Your task to perform on an android device: delete location history Image 0: 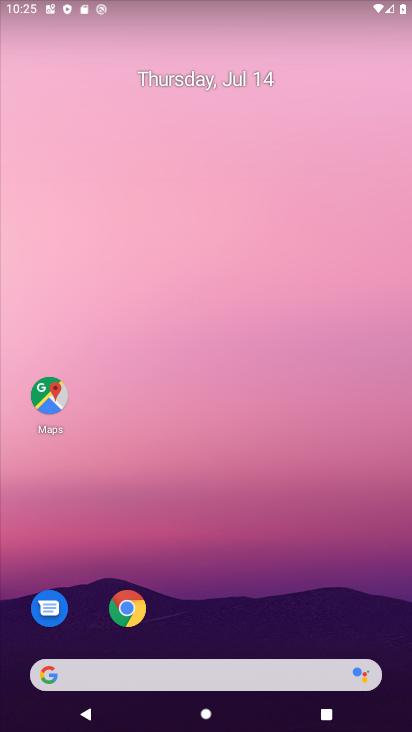
Step 0: drag from (242, 661) to (227, 174)
Your task to perform on an android device: delete location history Image 1: 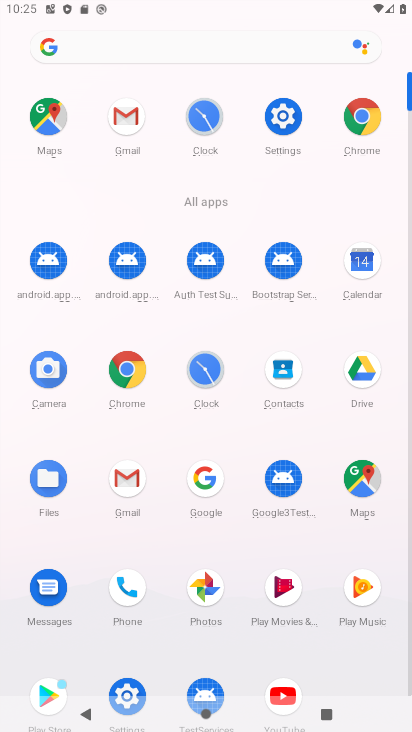
Step 1: click (357, 478)
Your task to perform on an android device: delete location history Image 2: 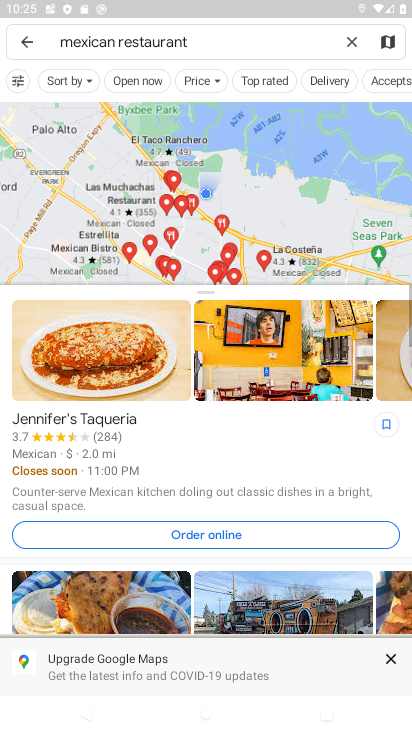
Step 2: click (25, 36)
Your task to perform on an android device: delete location history Image 3: 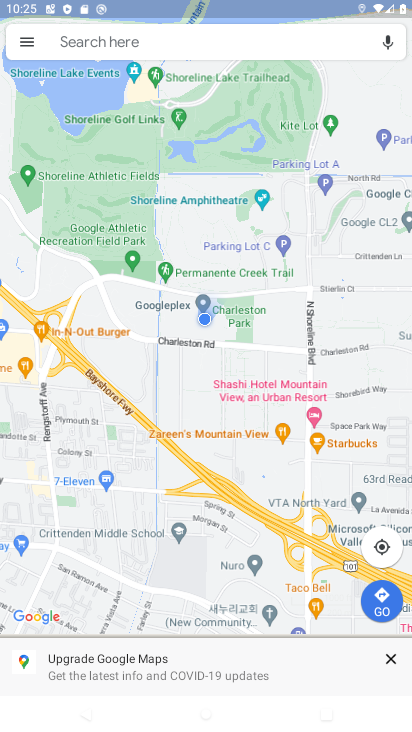
Step 3: click (25, 39)
Your task to perform on an android device: delete location history Image 4: 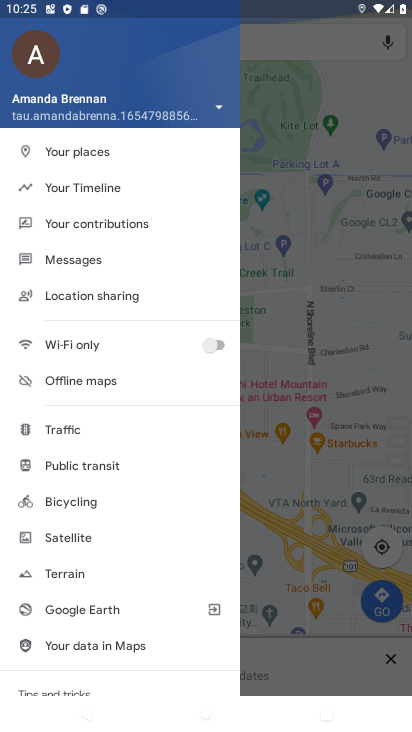
Step 4: click (82, 185)
Your task to perform on an android device: delete location history Image 5: 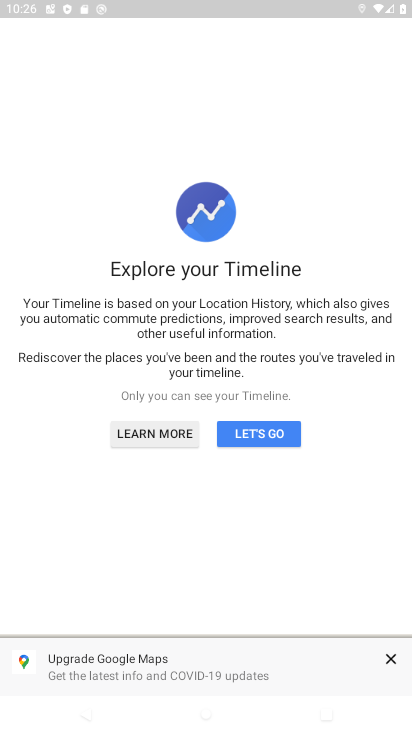
Step 5: click (393, 655)
Your task to perform on an android device: delete location history Image 6: 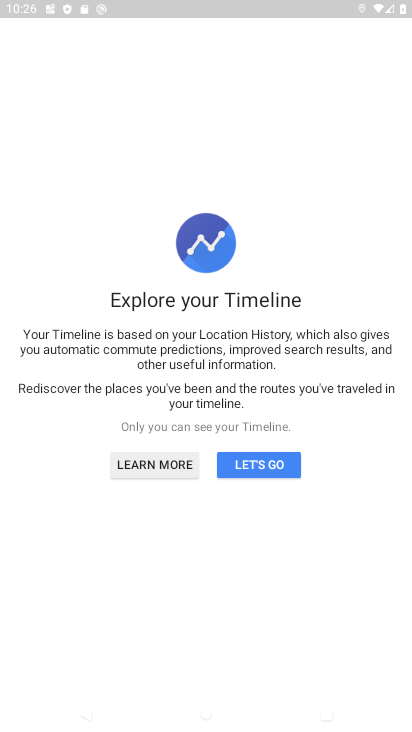
Step 6: click (255, 466)
Your task to perform on an android device: delete location history Image 7: 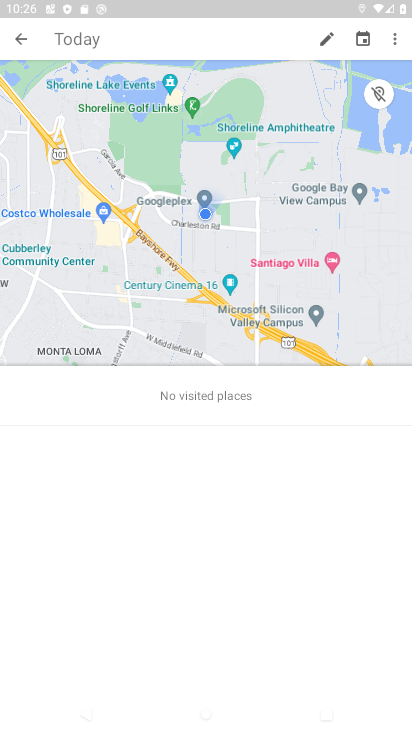
Step 7: click (393, 36)
Your task to perform on an android device: delete location history Image 8: 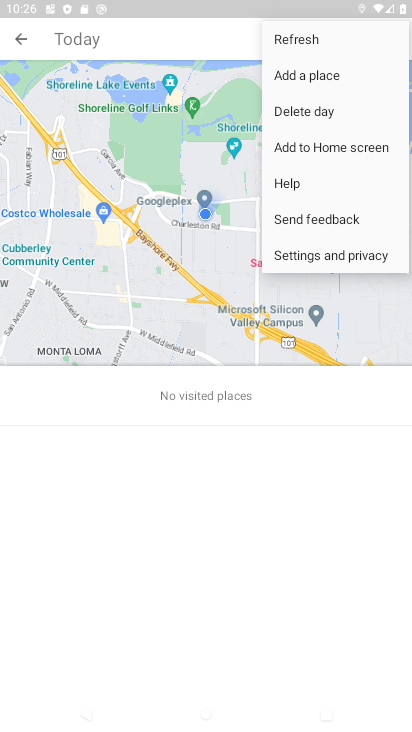
Step 8: click (310, 255)
Your task to perform on an android device: delete location history Image 9: 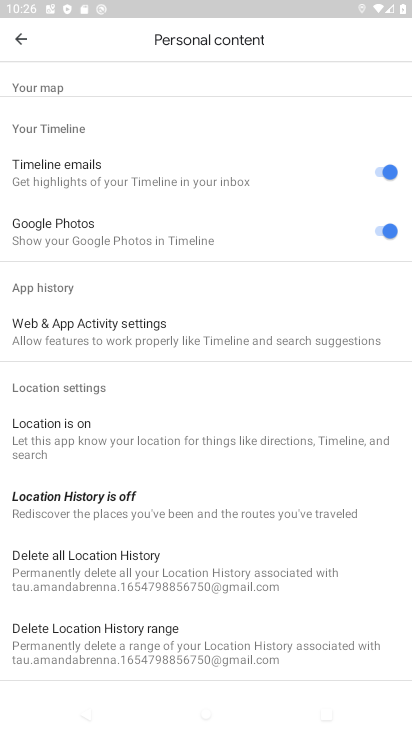
Step 9: click (125, 556)
Your task to perform on an android device: delete location history Image 10: 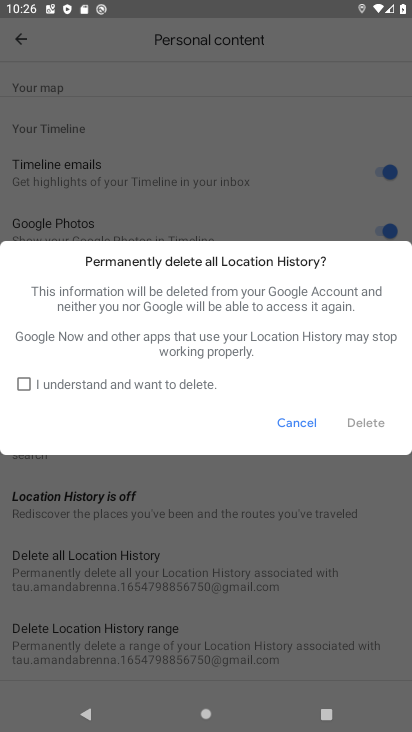
Step 10: click (23, 380)
Your task to perform on an android device: delete location history Image 11: 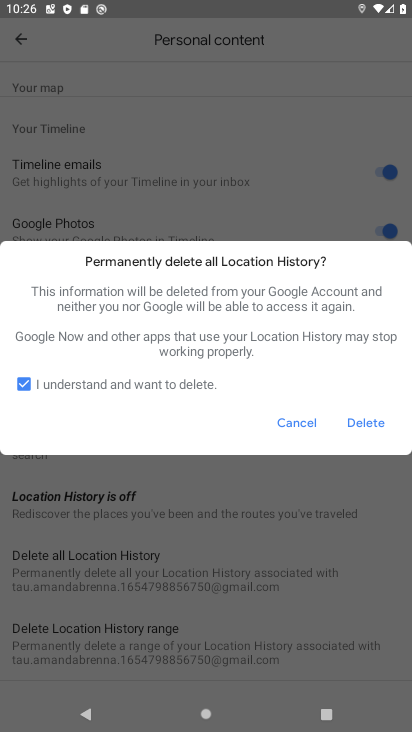
Step 11: click (364, 420)
Your task to perform on an android device: delete location history Image 12: 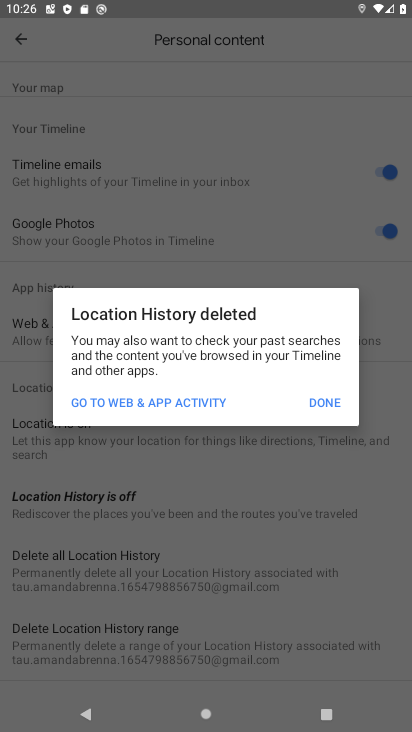
Step 12: click (327, 401)
Your task to perform on an android device: delete location history Image 13: 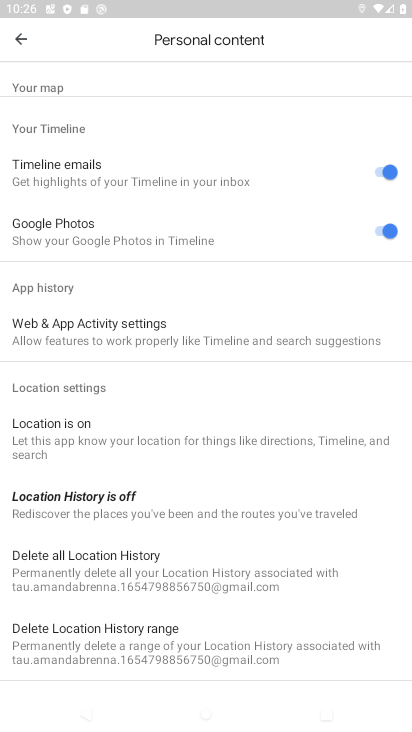
Step 13: task complete